Your task to perform on an android device: toggle data saver in the chrome app Image 0: 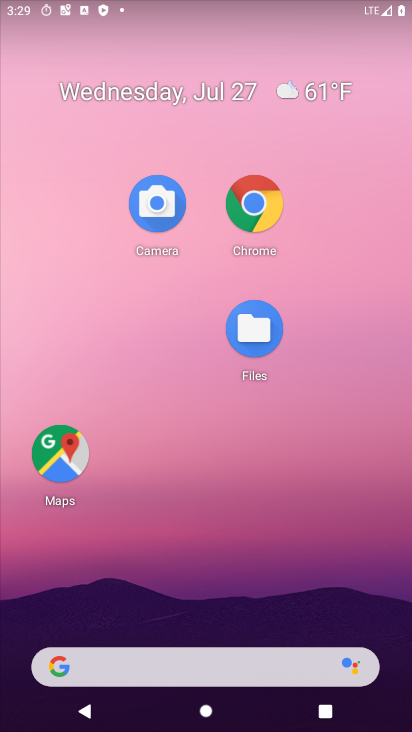
Step 0: click (250, 218)
Your task to perform on an android device: toggle data saver in the chrome app Image 1: 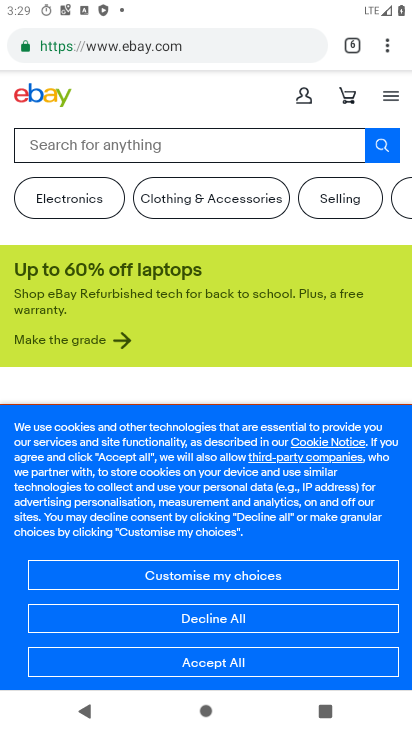
Step 1: click (391, 32)
Your task to perform on an android device: toggle data saver in the chrome app Image 2: 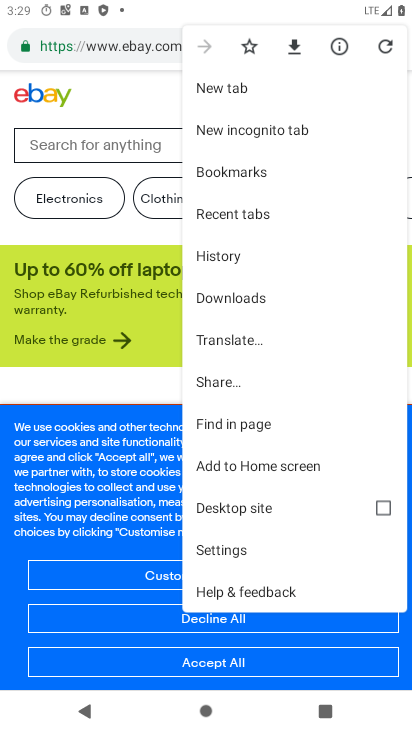
Step 2: click (244, 548)
Your task to perform on an android device: toggle data saver in the chrome app Image 3: 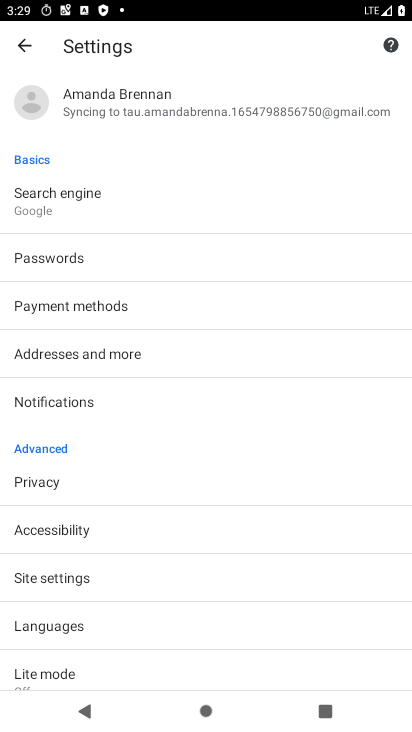
Step 3: click (93, 670)
Your task to perform on an android device: toggle data saver in the chrome app Image 4: 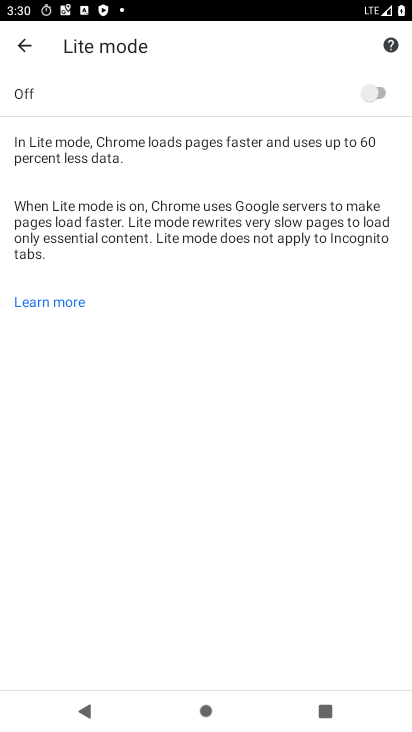
Step 4: click (374, 91)
Your task to perform on an android device: toggle data saver in the chrome app Image 5: 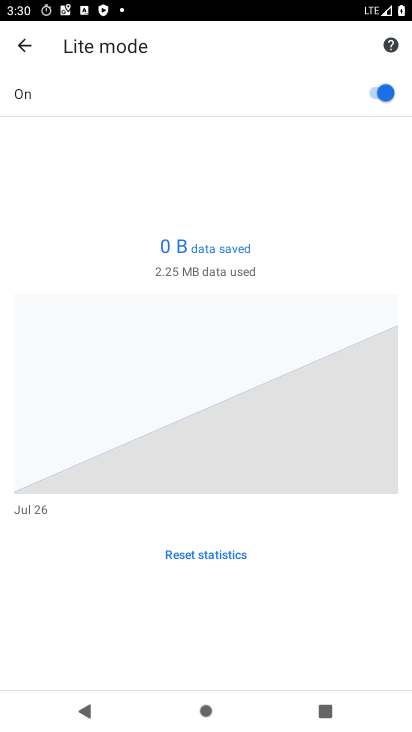
Step 5: click (370, 97)
Your task to perform on an android device: toggle data saver in the chrome app Image 6: 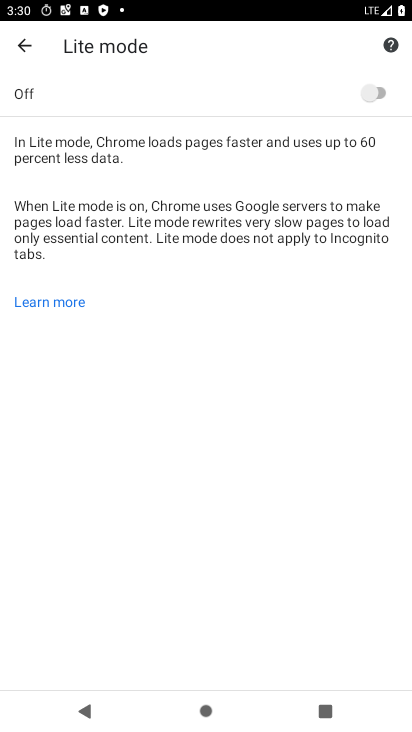
Step 6: task complete